Your task to perform on an android device: Go to CNN.com Image 0: 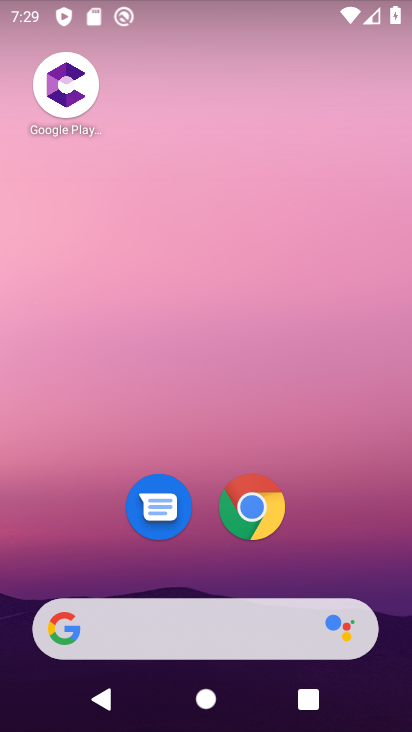
Step 0: drag from (329, 542) to (357, 135)
Your task to perform on an android device: Go to CNN.com Image 1: 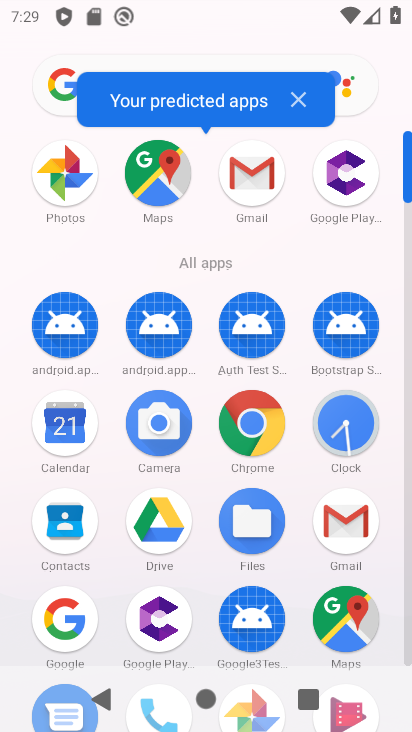
Step 1: click (246, 431)
Your task to perform on an android device: Go to CNN.com Image 2: 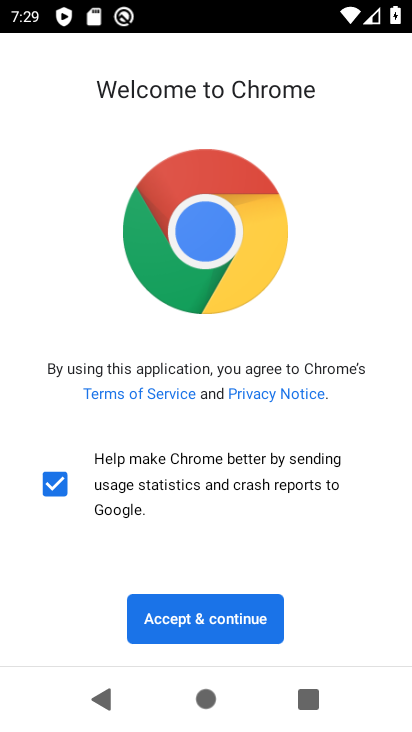
Step 2: click (255, 621)
Your task to perform on an android device: Go to CNN.com Image 3: 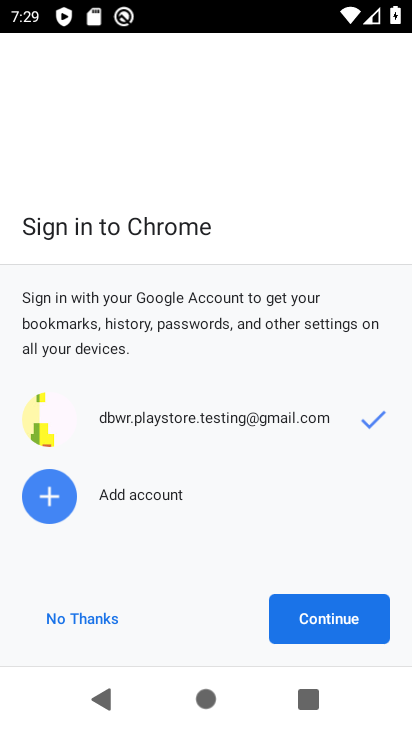
Step 3: click (336, 622)
Your task to perform on an android device: Go to CNN.com Image 4: 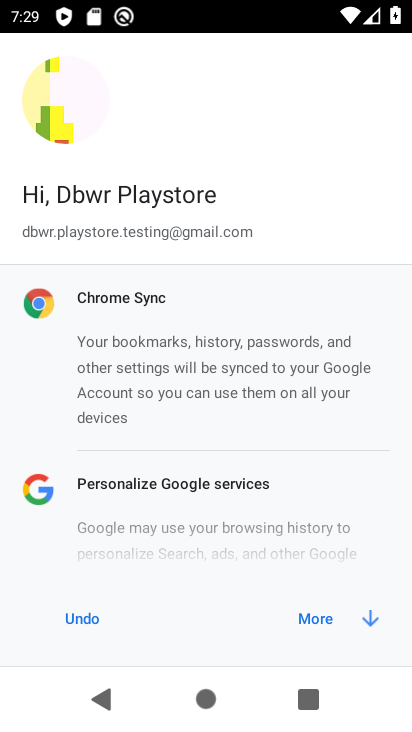
Step 4: click (336, 622)
Your task to perform on an android device: Go to CNN.com Image 5: 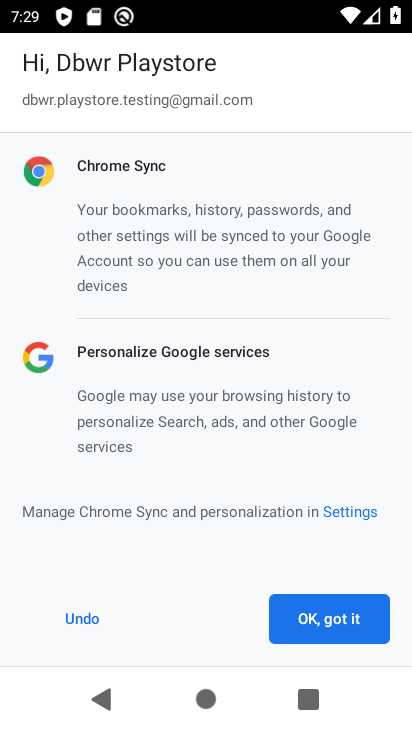
Step 5: click (337, 622)
Your task to perform on an android device: Go to CNN.com Image 6: 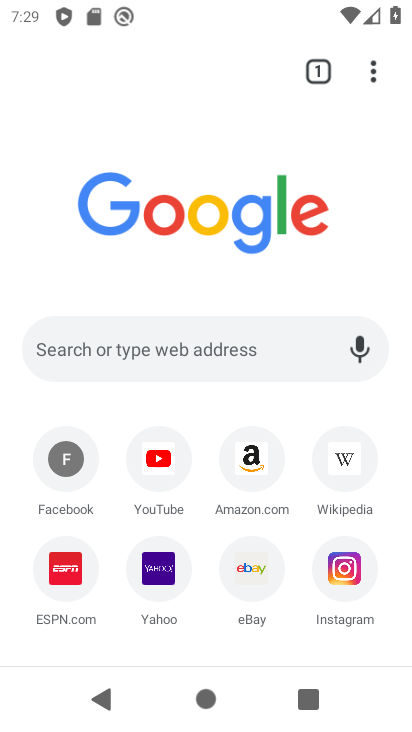
Step 6: click (262, 347)
Your task to perform on an android device: Go to CNN.com Image 7: 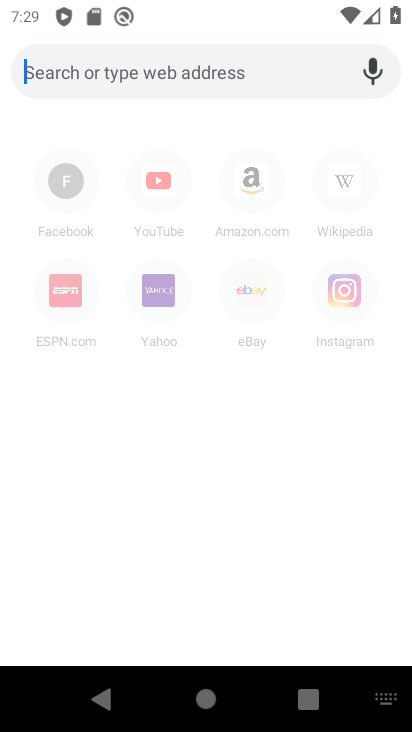
Step 7: type "cnn.com"
Your task to perform on an android device: Go to CNN.com Image 8: 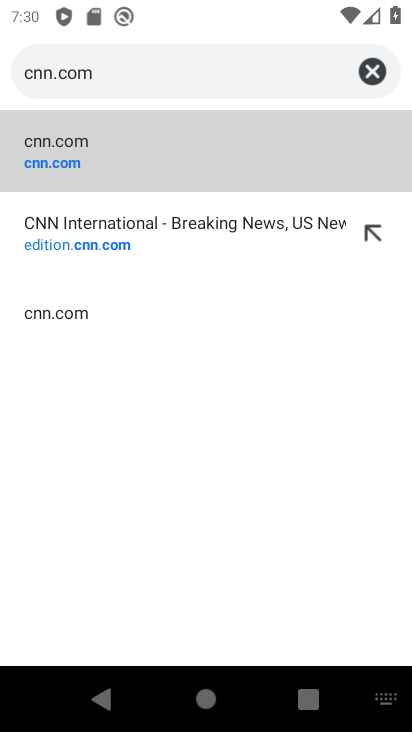
Step 8: click (58, 153)
Your task to perform on an android device: Go to CNN.com Image 9: 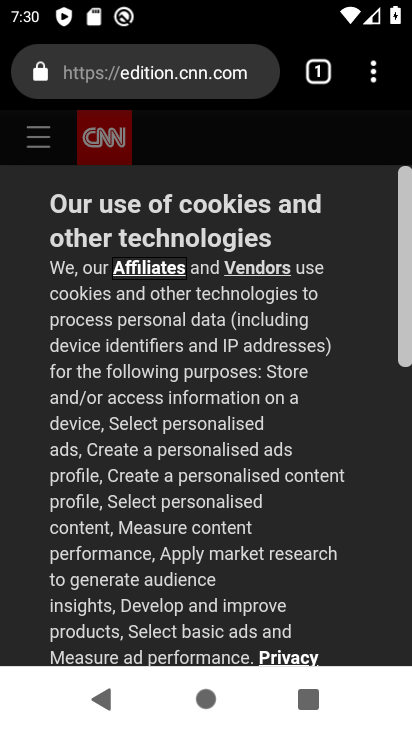
Step 9: task complete